Your task to perform on an android device: open app "VLC for Android" Image 0: 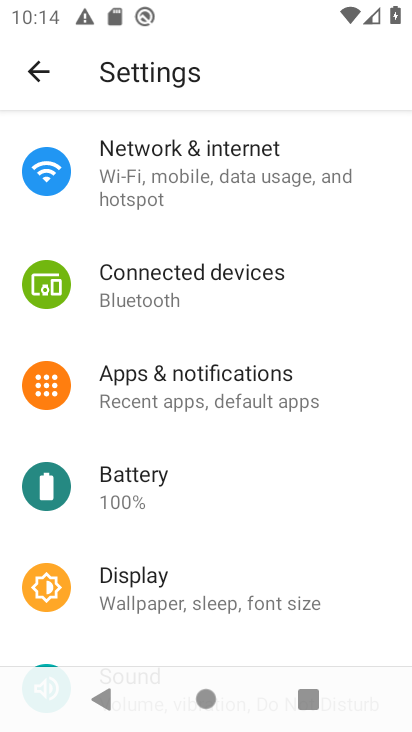
Step 0: press home button
Your task to perform on an android device: open app "VLC for Android" Image 1: 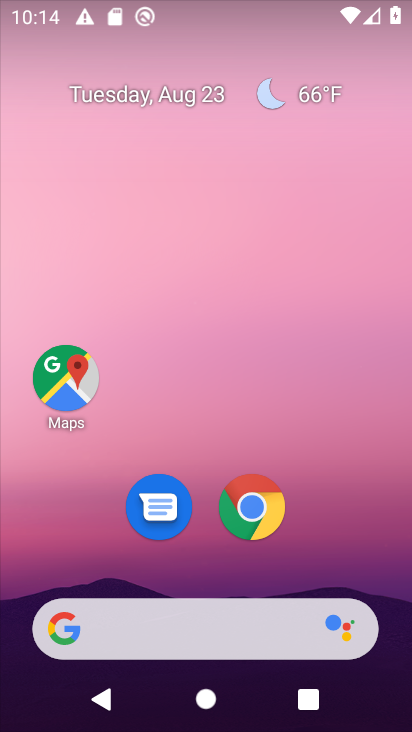
Step 1: drag from (400, 659) to (353, 162)
Your task to perform on an android device: open app "VLC for Android" Image 2: 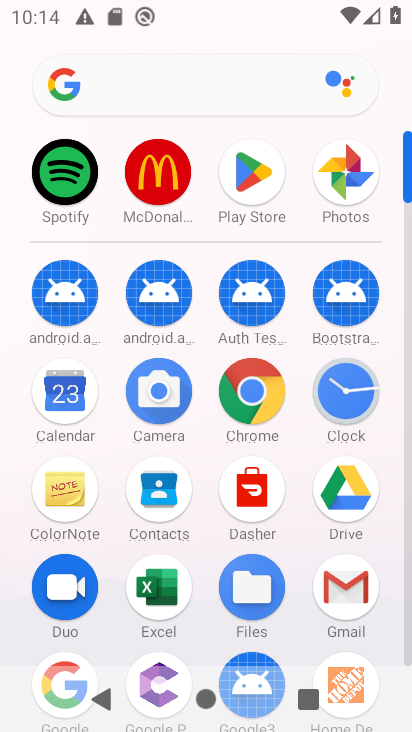
Step 2: click (410, 653)
Your task to perform on an android device: open app "VLC for Android" Image 3: 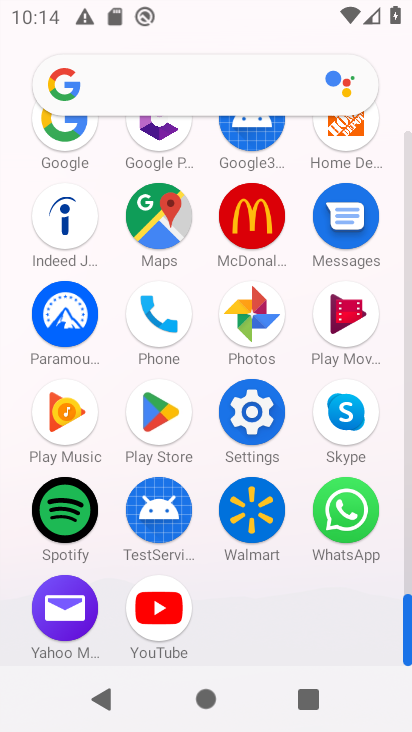
Step 3: click (160, 409)
Your task to perform on an android device: open app "VLC for Android" Image 4: 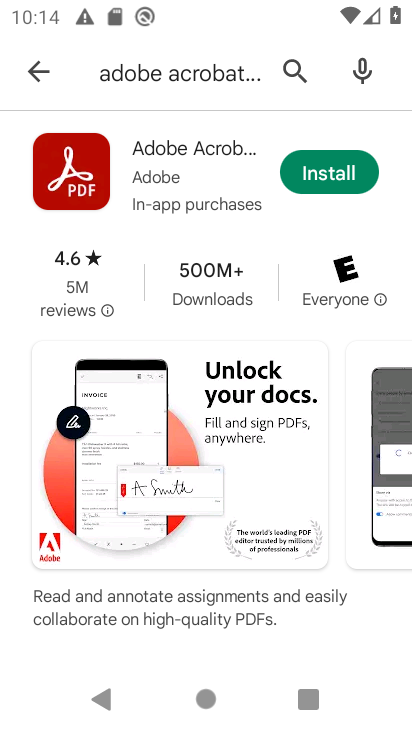
Step 4: click (297, 75)
Your task to perform on an android device: open app "VLC for Android" Image 5: 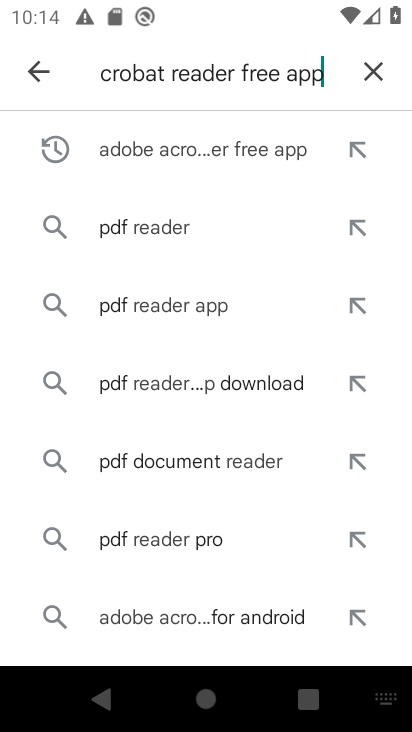
Step 5: click (370, 73)
Your task to perform on an android device: open app "VLC for Android" Image 6: 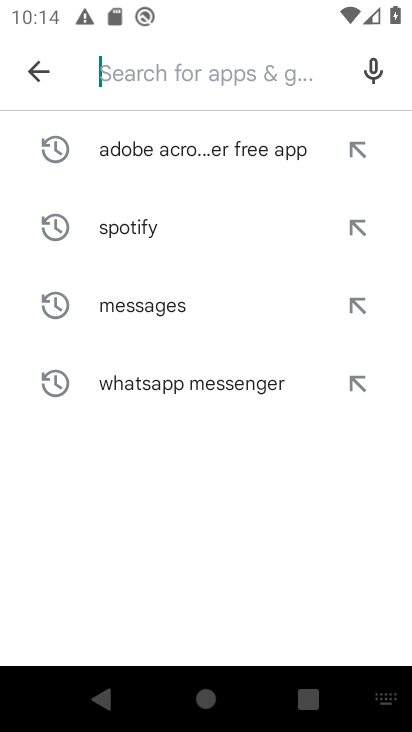
Step 6: type "VLC for Android"
Your task to perform on an android device: open app "VLC for Android" Image 7: 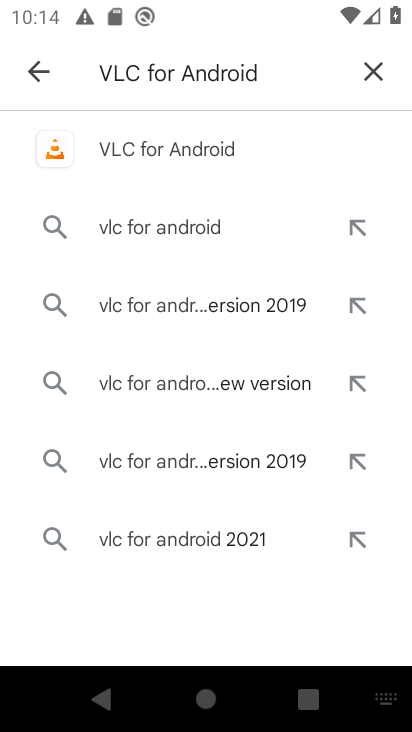
Step 7: click (129, 143)
Your task to perform on an android device: open app "VLC for Android" Image 8: 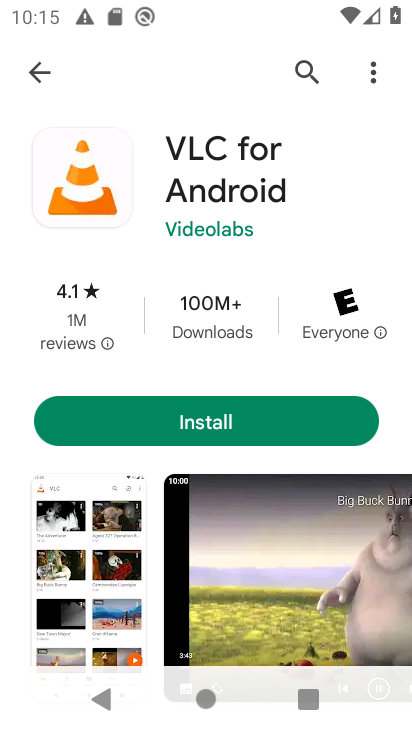
Step 8: task complete